Your task to perform on an android device: Open the stopwatch Image 0: 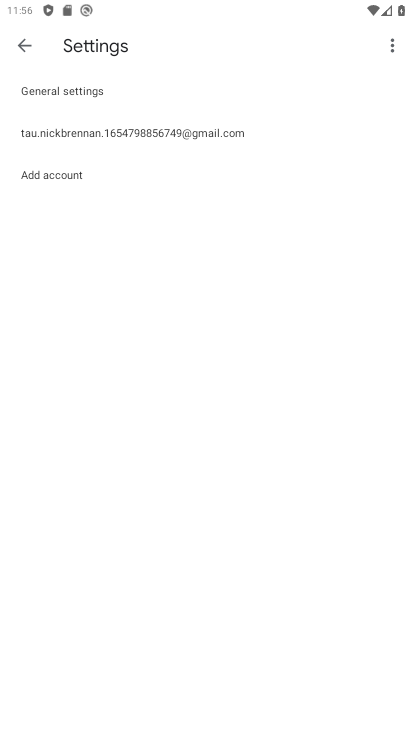
Step 0: press home button
Your task to perform on an android device: Open the stopwatch Image 1: 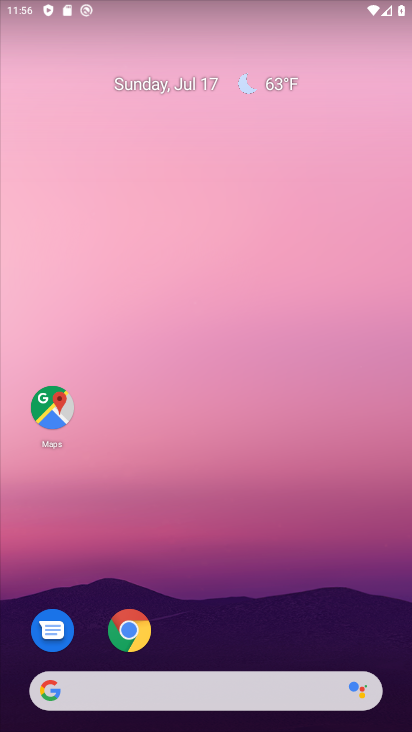
Step 1: drag from (248, 632) to (343, 174)
Your task to perform on an android device: Open the stopwatch Image 2: 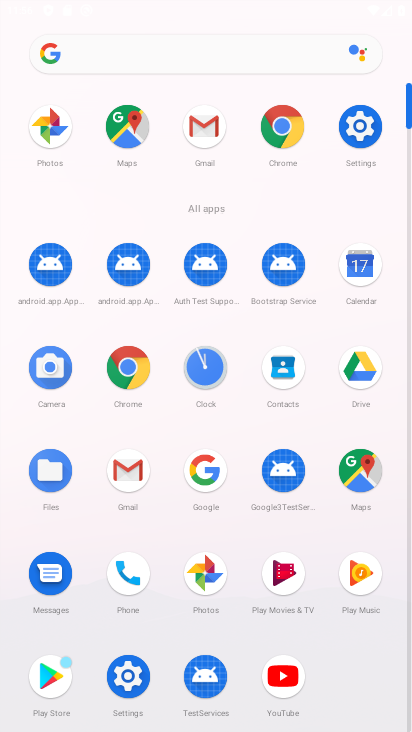
Step 2: click (216, 386)
Your task to perform on an android device: Open the stopwatch Image 3: 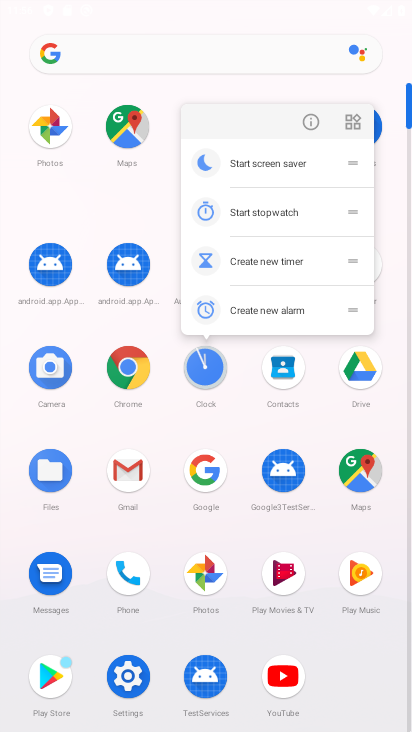
Step 3: click (193, 358)
Your task to perform on an android device: Open the stopwatch Image 4: 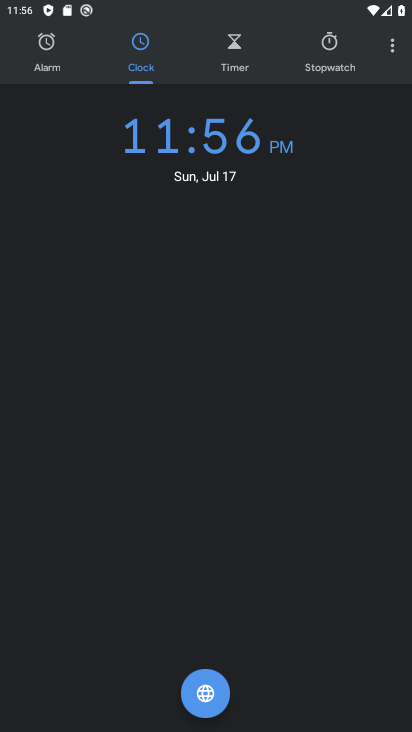
Step 4: click (339, 57)
Your task to perform on an android device: Open the stopwatch Image 5: 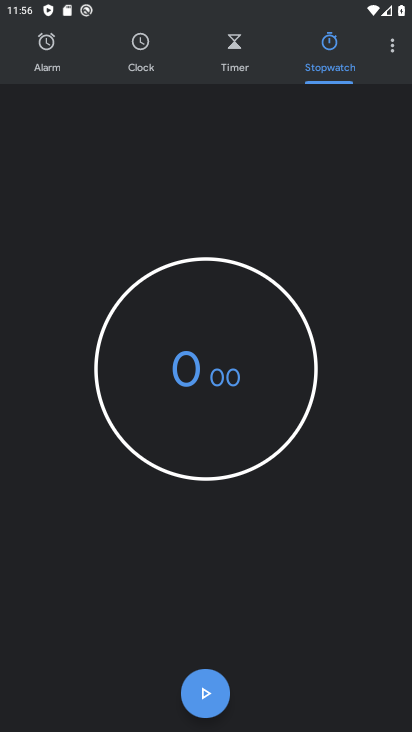
Step 5: task complete